Your task to perform on an android device: visit the assistant section in the google photos Image 0: 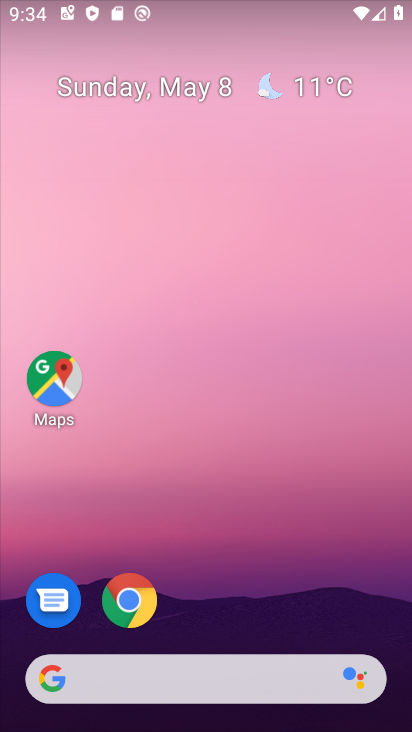
Step 0: drag from (252, 600) to (216, 45)
Your task to perform on an android device: visit the assistant section in the google photos Image 1: 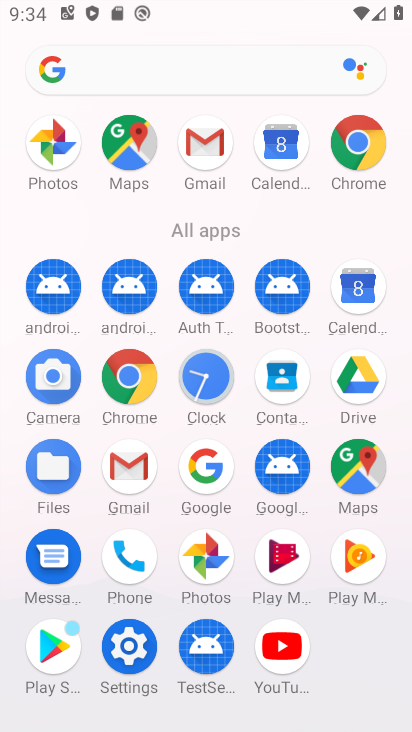
Step 1: click (200, 556)
Your task to perform on an android device: visit the assistant section in the google photos Image 2: 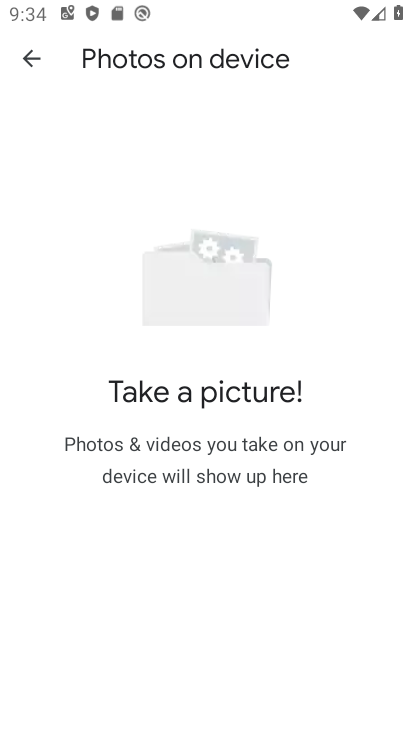
Step 2: click (35, 70)
Your task to perform on an android device: visit the assistant section in the google photos Image 3: 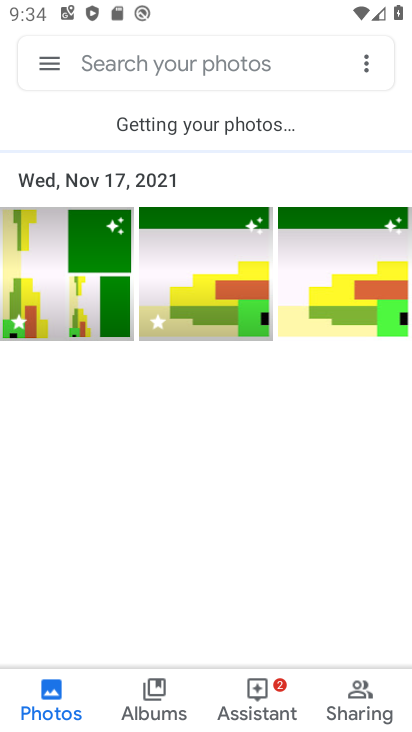
Step 3: click (209, 62)
Your task to perform on an android device: visit the assistant section in the google photos Image 4: 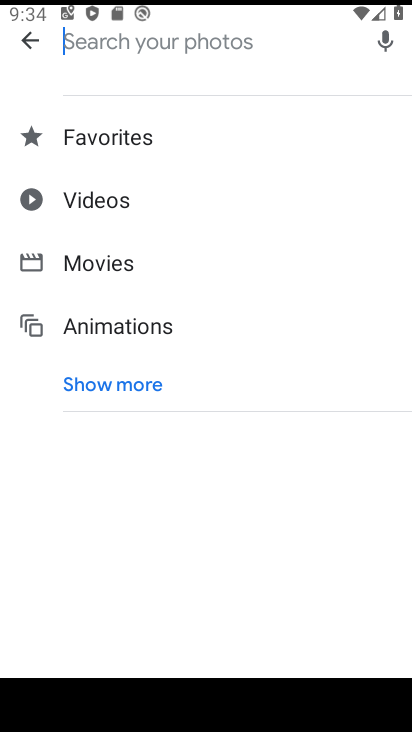
Step 4: click (25, 22)
Your task to perform on an android device: visit the assistant section in the google photos Image 5: 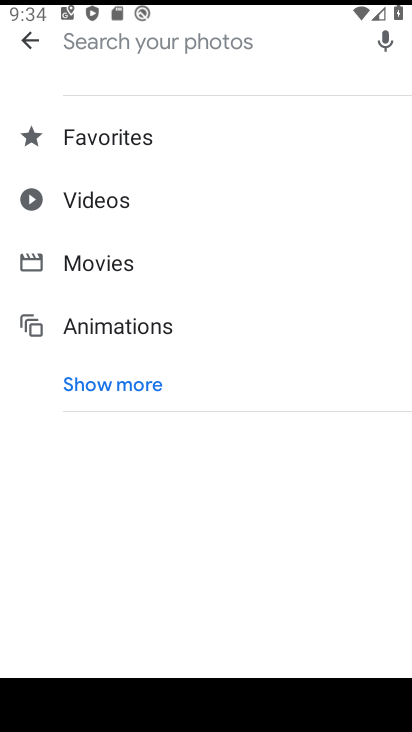
Step 5: click (23, 43)
Your task to perform on an android device: visit the assistant section in the google photos Image 6: 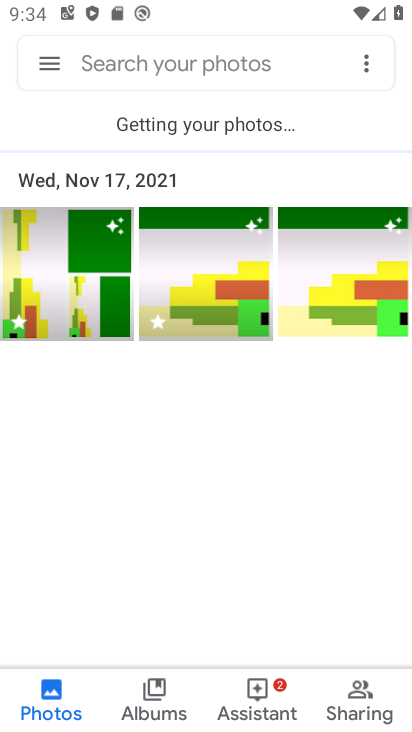
Step 6: click (274, 708)
Your task to perform on an android device: visit the assistant section in the google photos Image 7: 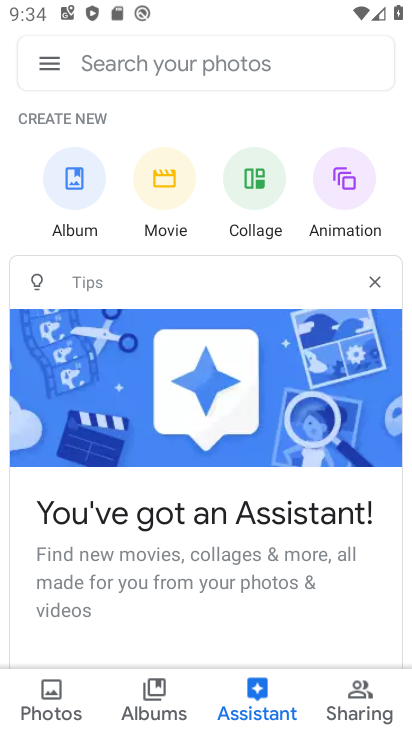
Step 7: task complete